Your task to perform on an android device: find photos in the google photos app Image 0: 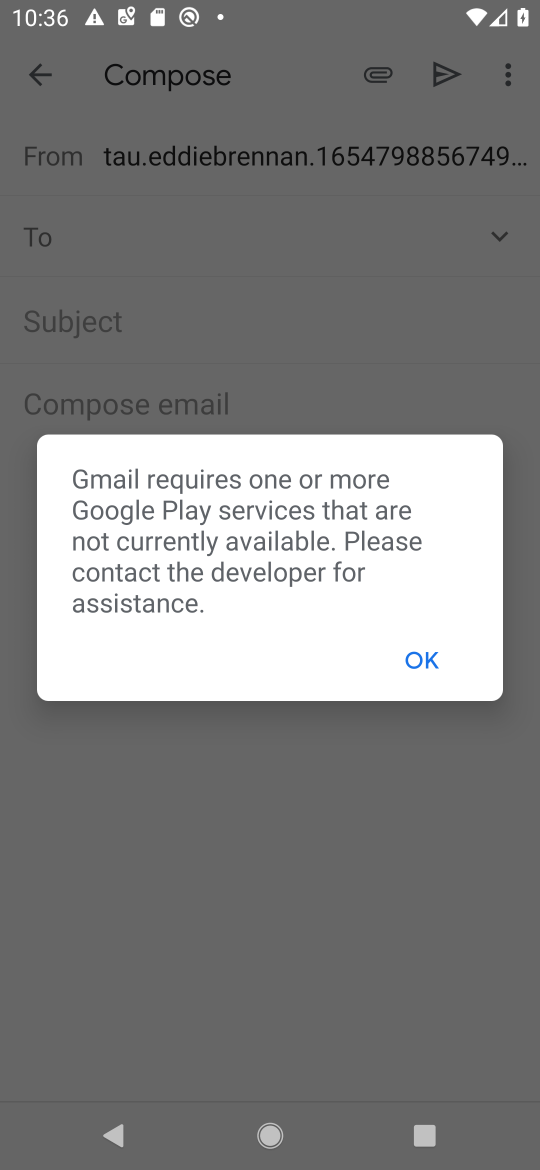
Step 0: press home button
Your task to perform on an android device: find photos in the google photos app Image 1: 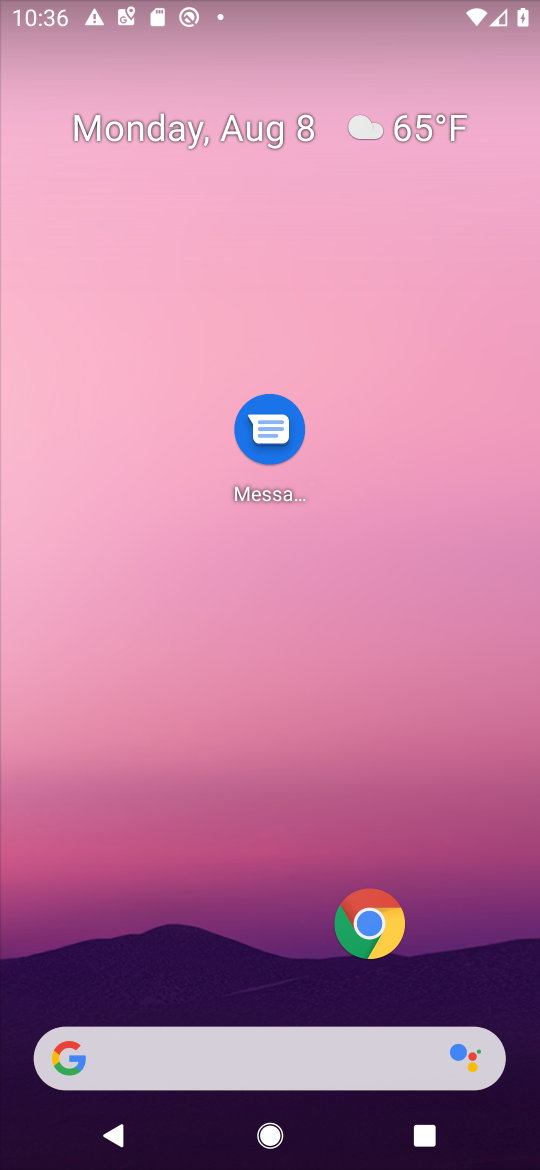
Step 1: drag from (9, 1125) to (365, 432)
Your task to perform on an android device: find photos in the google photos app Image 2: 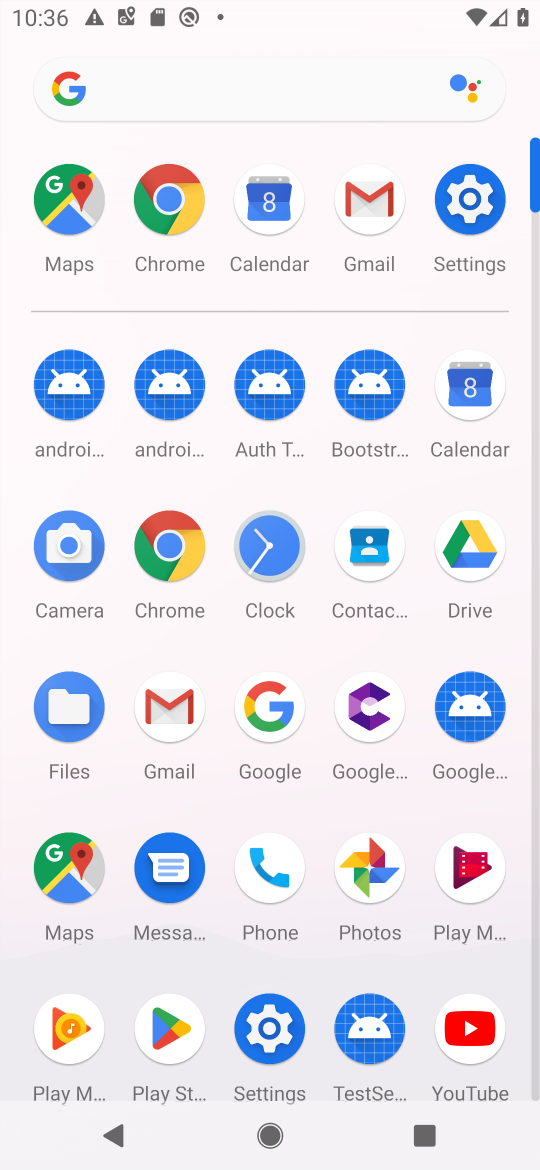
Step 2: click (385, 876)
Your task to perform on an android device: find photos in the google photos app Image 3: 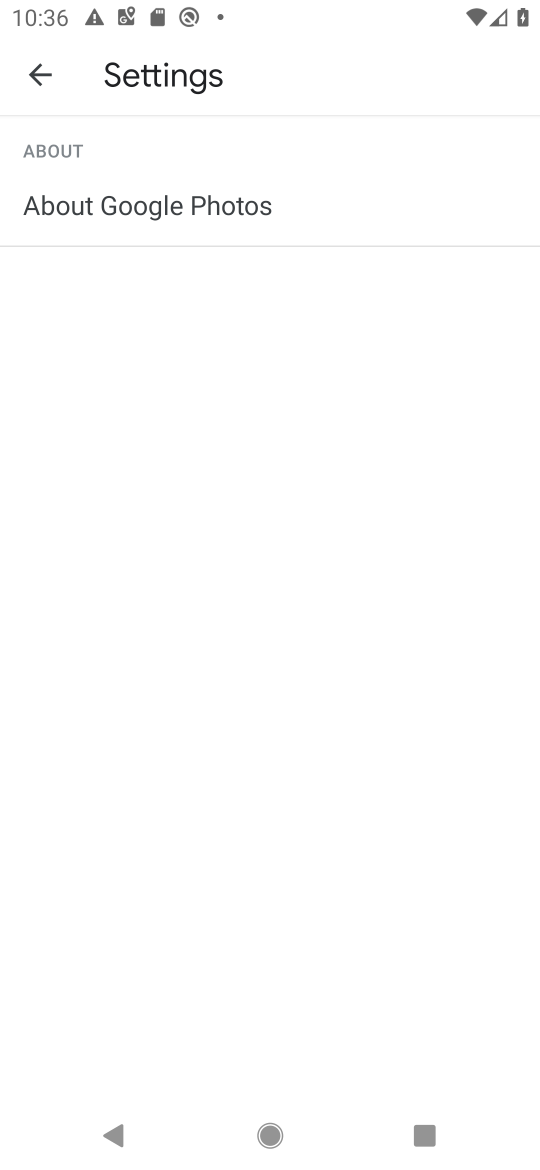
Step 3: click (45, 68)
Your task to perform on an android device: find photos in the google photos app Image 4: 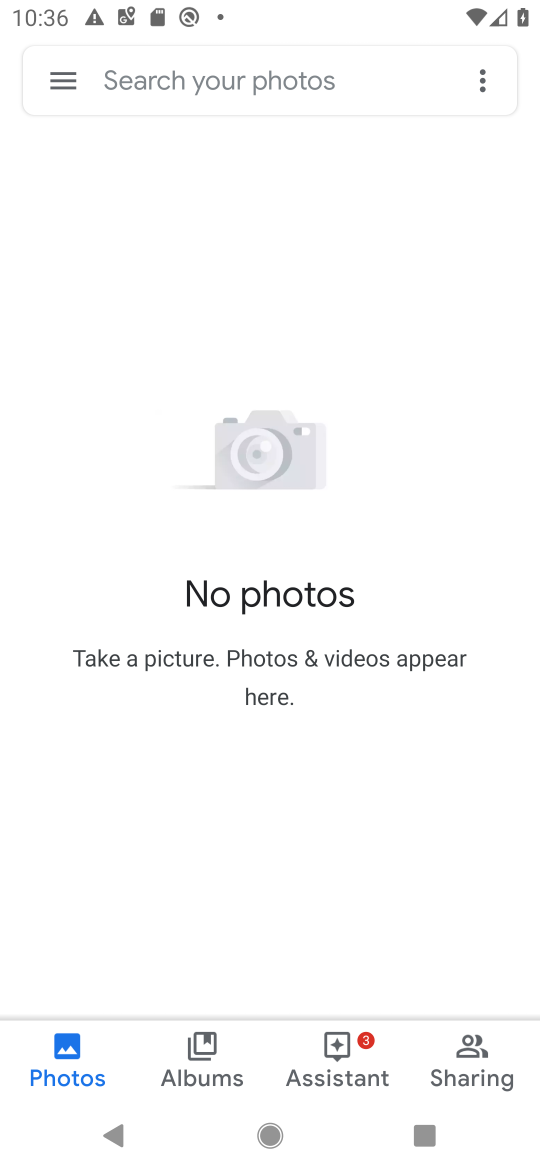
Step 4: task complete